Your task to perform on an android device: set the timer Image 0: 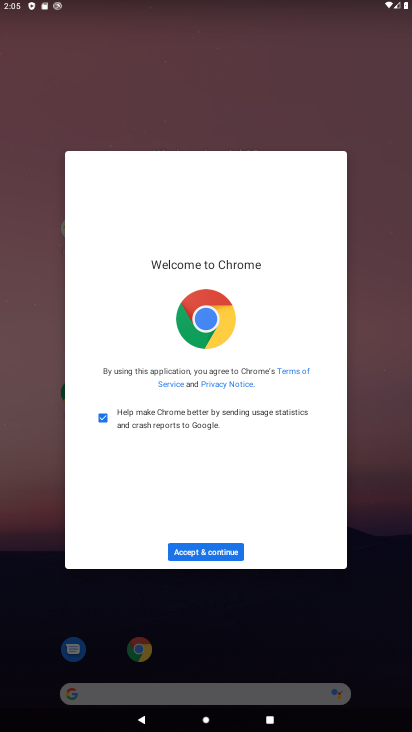
Step 0: press home button
Your task to perform on an android device: set the timer Image 1: 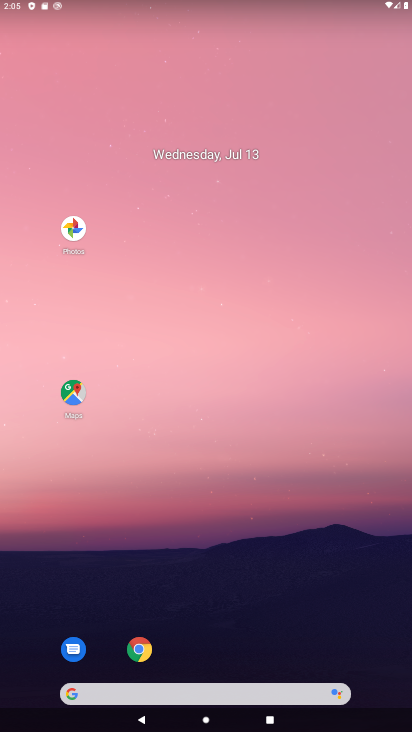
Step 1: drag from (271, 623) to (309, 146)
Your task to perform on an android device: set the timer Image 2: 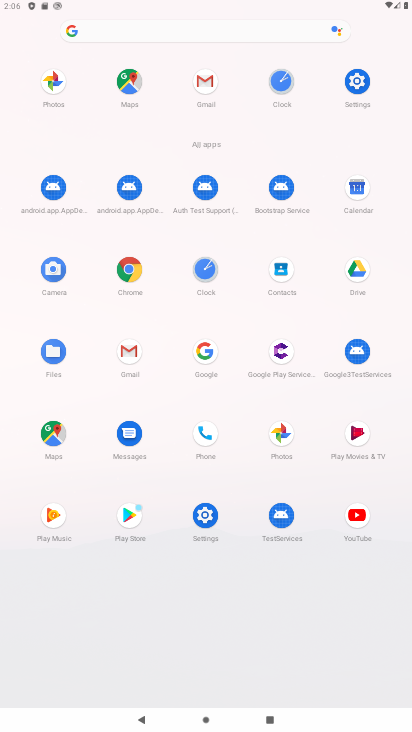
Step 2: drag from (282, 84) to (26, 194)
Your task to perform on an android device: set the timer Image 3: 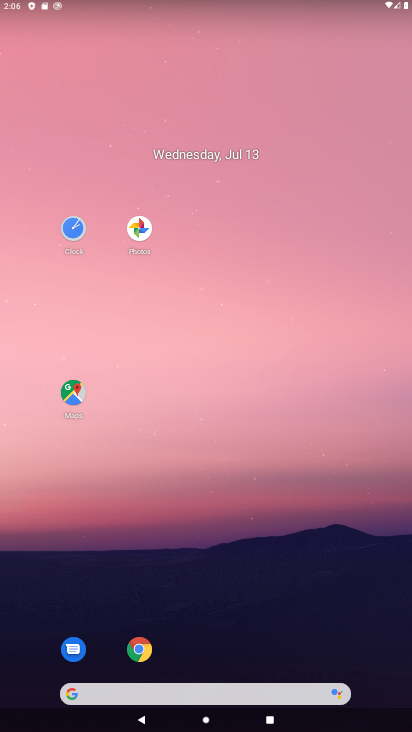
Step 3: click (81, 226)
Your task to perform on an android device: set the timer Image 4: 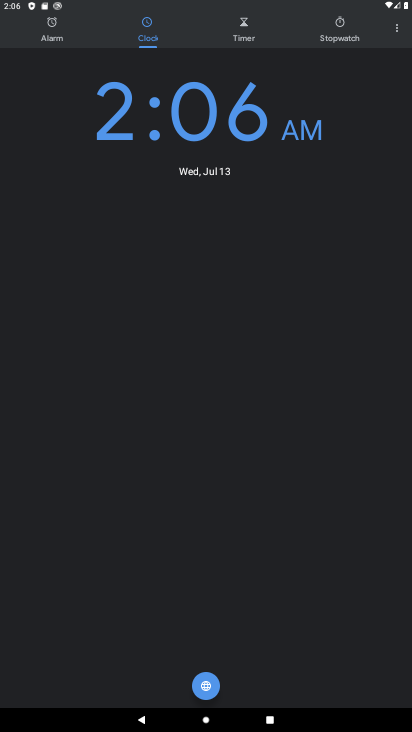
Step 4: click (243, 24)
Your task to perform on an android device: set the timer Image 5: 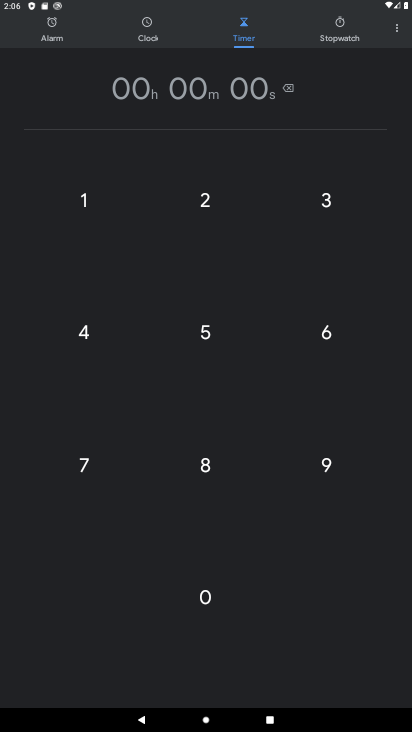
Step 5: click (199, 334)
Your task to perform on an android device: set the timer Image 6: 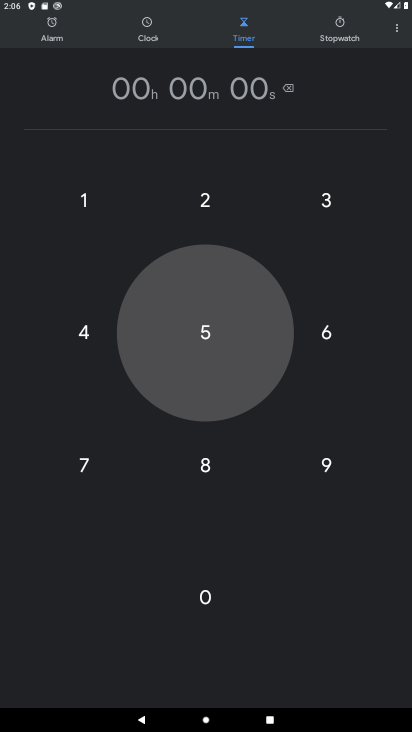
Step 6: click (210, 204)
Your task to perform on an android device: set the timer Image 7: 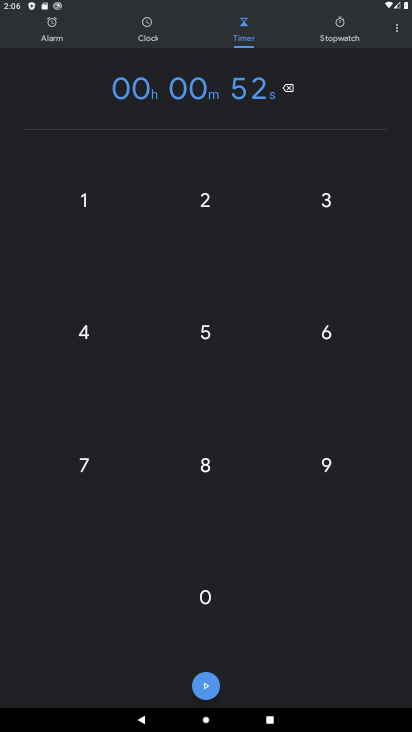
Step 7: click (215, 683)
Your task to perform on an android device: set the timer Image 8: 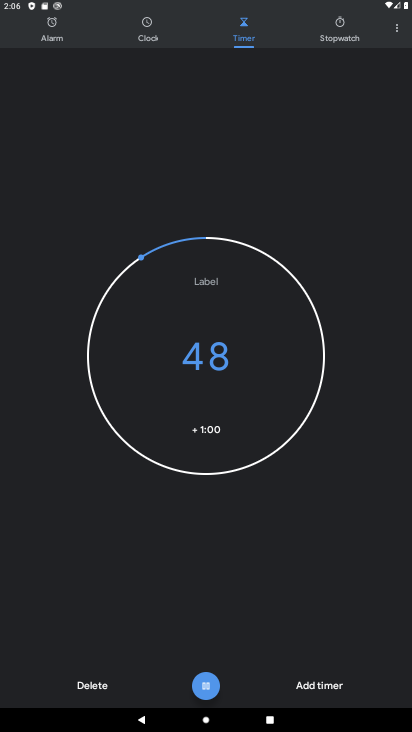
Step 8: task complete